Your task to perform on an android device: allow notifications from all sites in the chrome app Image 0: 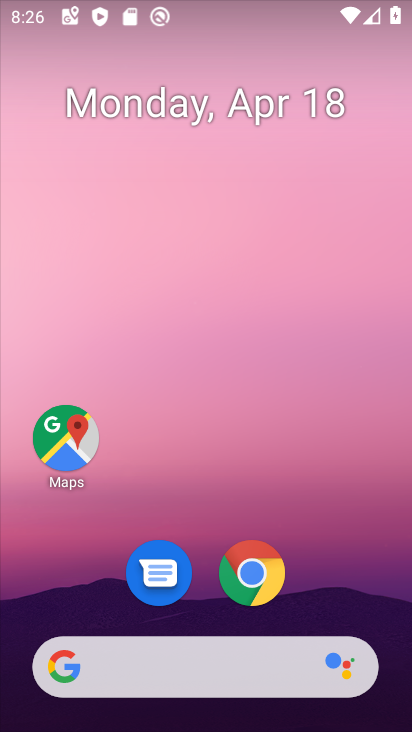
Step 0: click (257, 577)
Your task to perform on an android device: allow notifications from all sites in the chrome app Image 1: 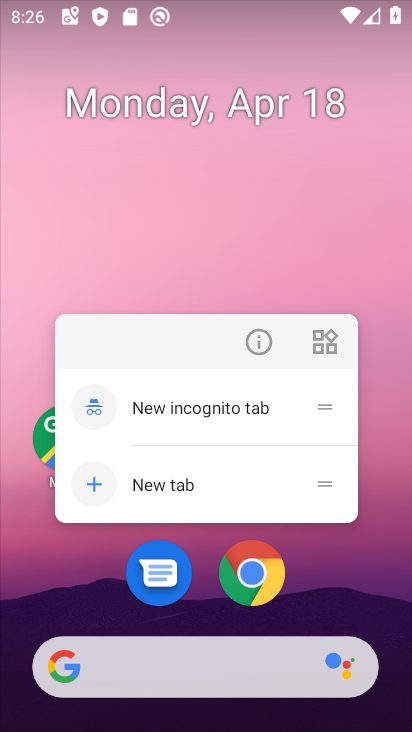
Step 1: click (259, 586)
Your task to perform on an android device: allow notifications from all sites in the chrome app Image 2: 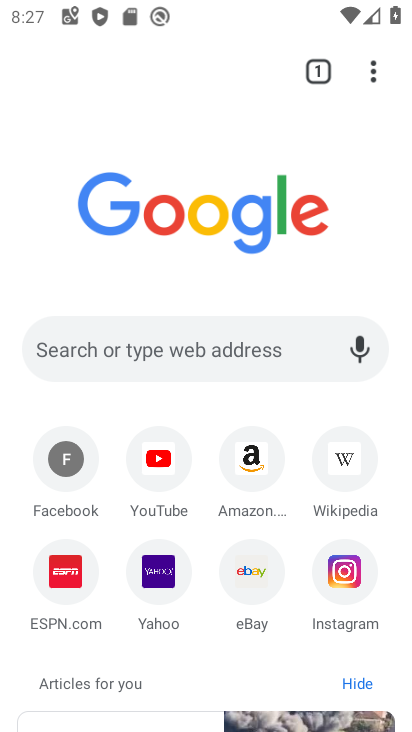
Step 2: click (370, 77)
Your task to perform on an android device: allow notifications from all sites in the chrome app Image 3: 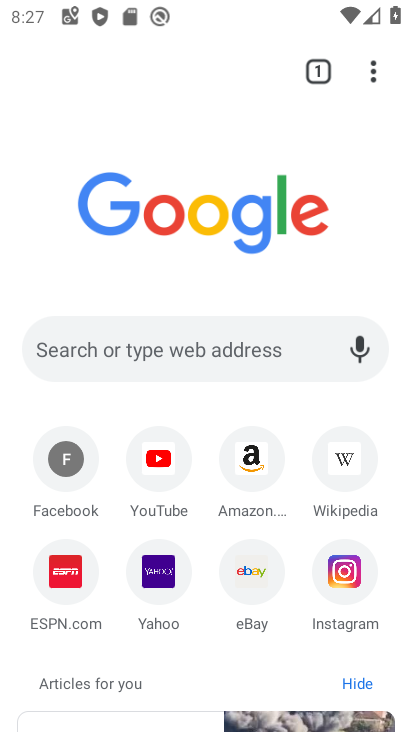
Step 3: drag from (371, 75) to (183, 605)
Your task to perform on an android device: allow notifications from all sites in the chrome app Image 4: 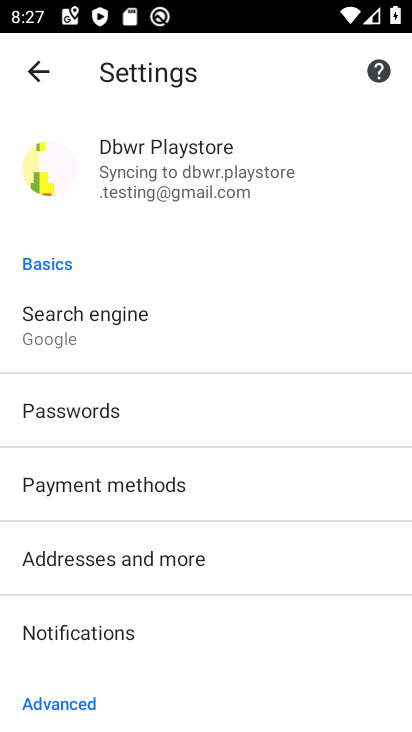
Step 4: click (107, 640)
Your task to perform on an android device: allow notifications from all sites in the chrome app Image 5: 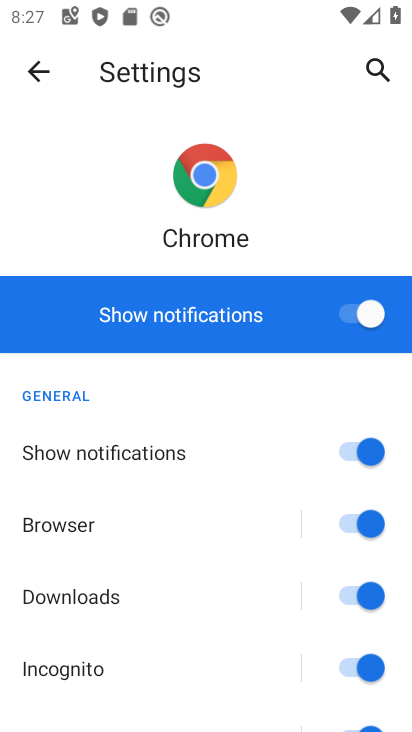
Step 5: task complete